Your task to perform on an android device: Open Youtube and go to the subscriptions tab Image 0: 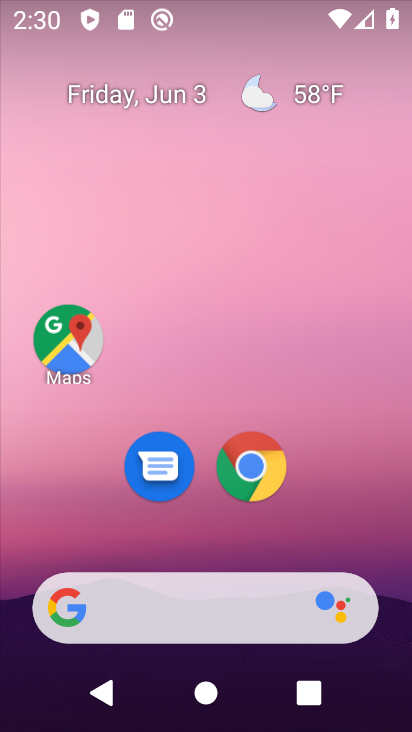
Step 0: drag from (364, 506) to (366, 176)
Your task to perform on an android device: Open Youtube and go to the subscriptions tab Image 1: 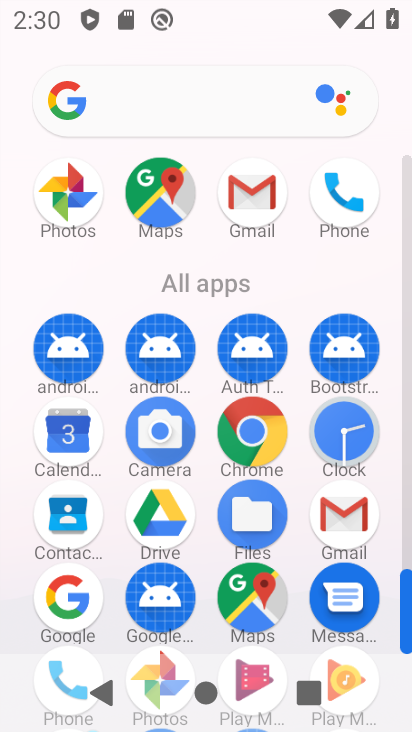
Step 1: drag from (292, 555) to (241, 304)
Your task to perform on an android device: Open Youtube and go to the subscriptions tab Image 2: 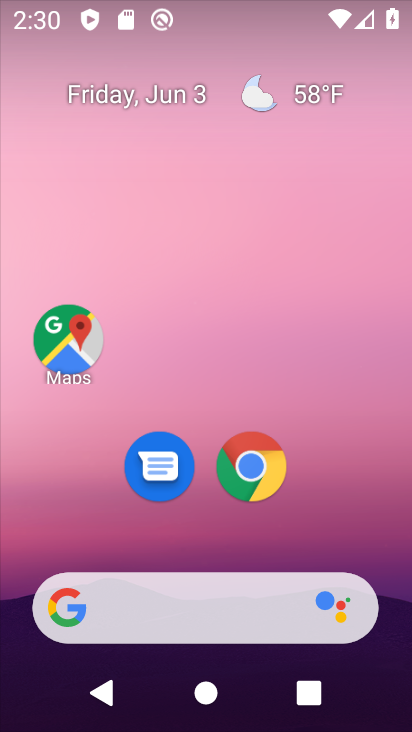
Step 2: drag from (312, 526) to (334, 217)
Your task to perform on an android device: Open Youtube and go to the subscriptions tab Image 3: 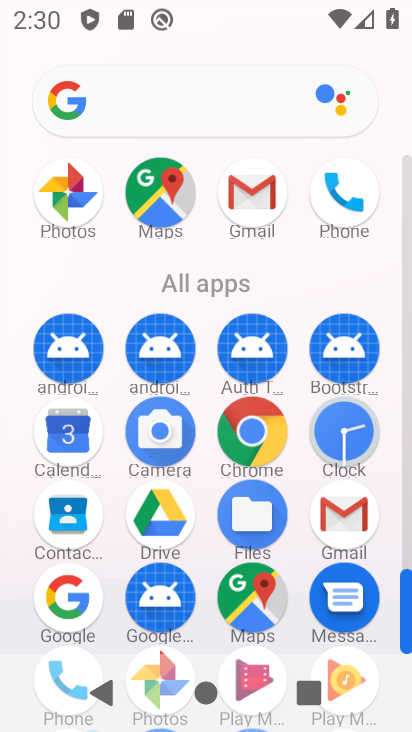
Step 3: drag from (299, 555) to (303, 144)
Your task to perform on an android device: Open Youtube and go to the subscriptions tab Image 4: 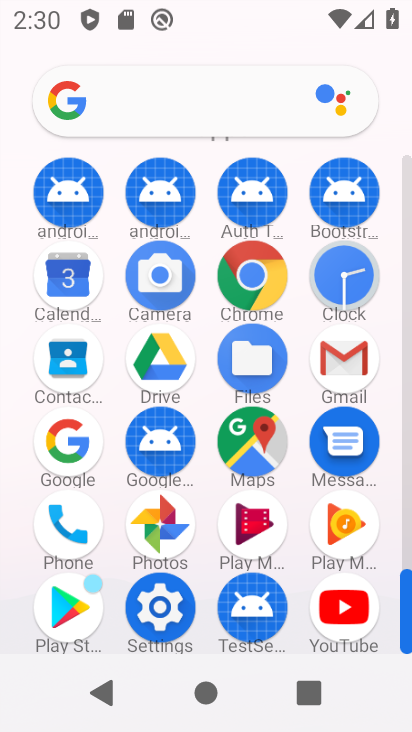
Step 4: click (352, 625)
Your task to perform on an android device: Open Youtube and go to the subscriptions tab Image 5: 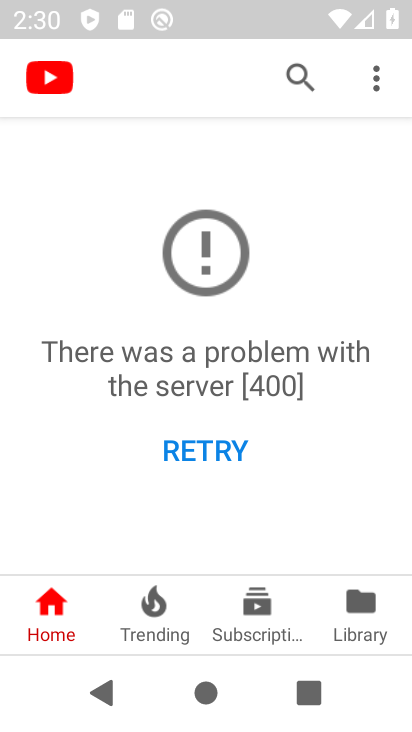
Step 5: click (249, 604)
Your task to perform on an android device: Open Youtube and go to the subscriptions tab Image 6: 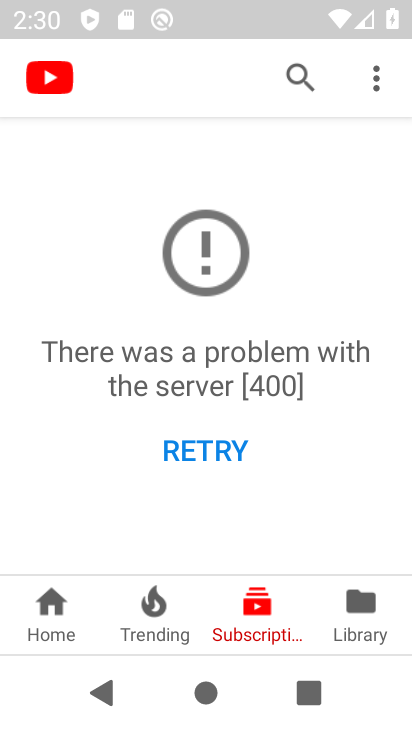
Step 6: task complete